Your task to perform on an android device: set the timer Image 0: 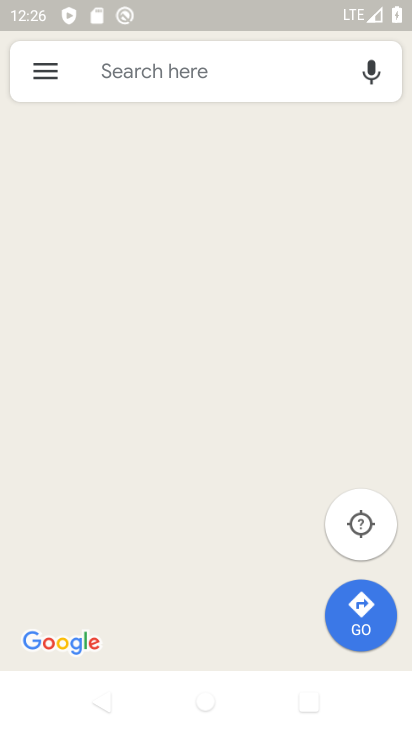
Step 0: press home button
Your task to perform on an android device: set the timer Image 1: 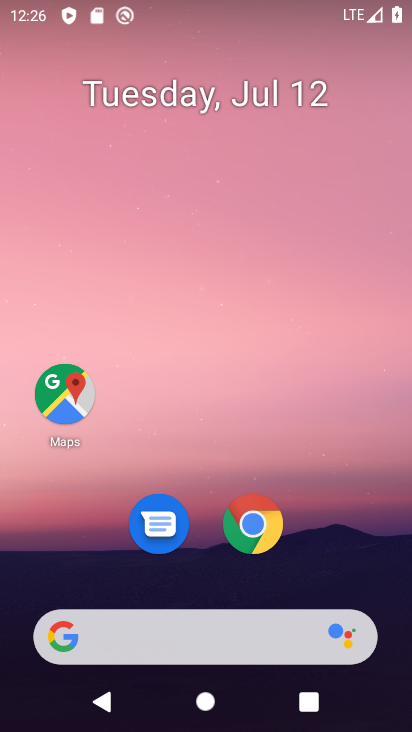
Step 1: drag from (311, 532) to (275, 23)
Your task to perform on an android device: set the timer Image 2: 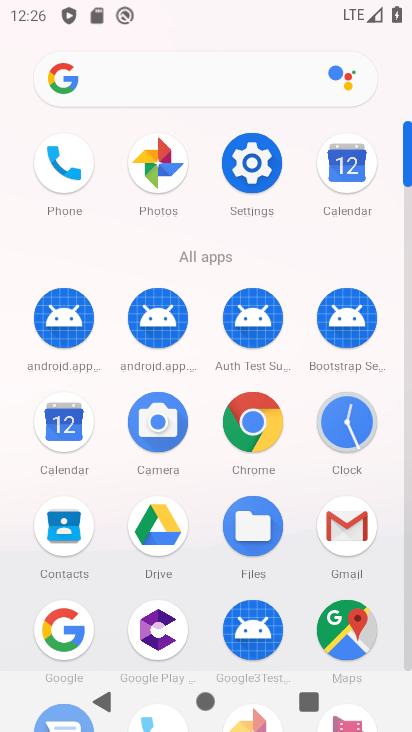
Step 2: click (349, 425)
Your task to perform on an android device: set the timer Image 3: 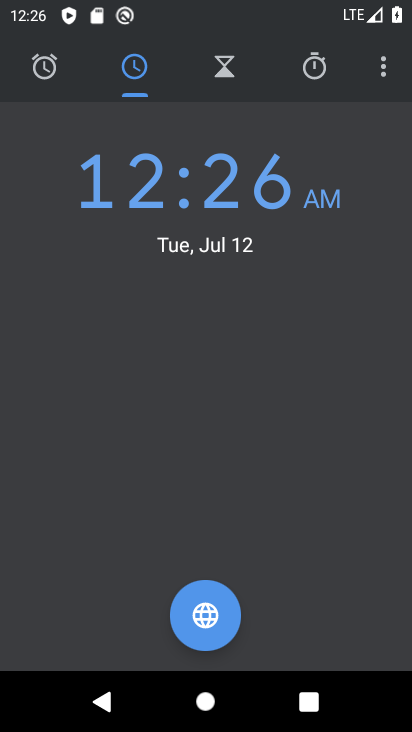
Step 3: click (230, 79)
Your task to perform on an android device: set the timer Image 4: 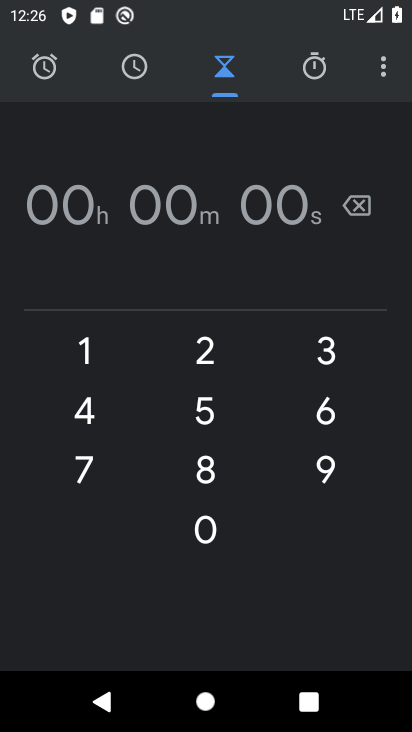
Step 4: click (85, 338)
Your task to perform on an android device: set the timer Image 5: 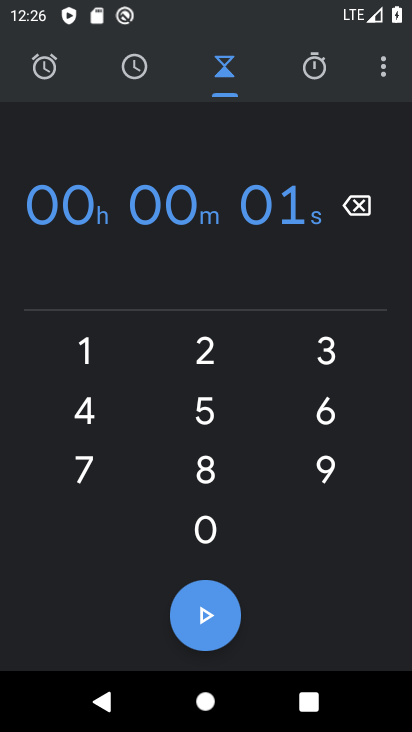
Step 5: task complete